Your task to perform on an android device: Open calendar and show me the first week of next month Image 0: 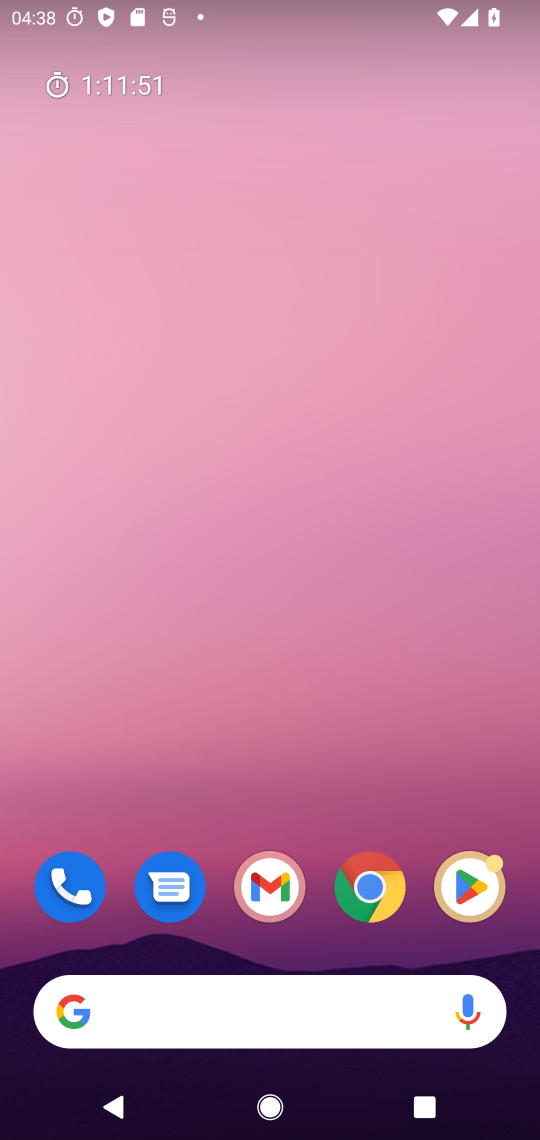
Step 0: press home button
Your task to perform on an android device: Open calendar and show me the first week of next month Image 1: 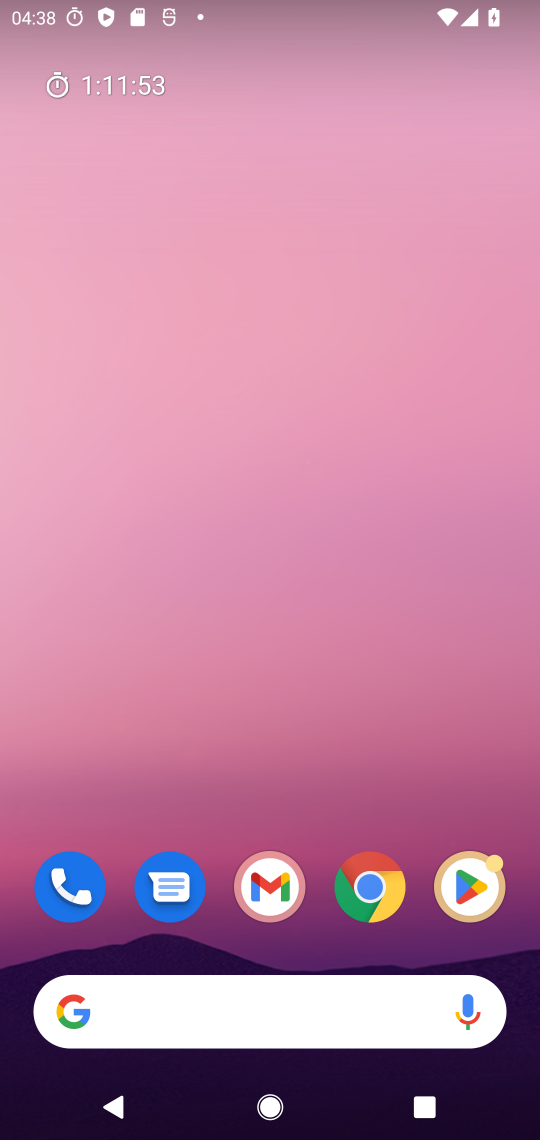
Step 1: drag from (423, 798) to (466, 192)
Your task to perform on an android device: Open calendar and show me the first week of next month Image 2: 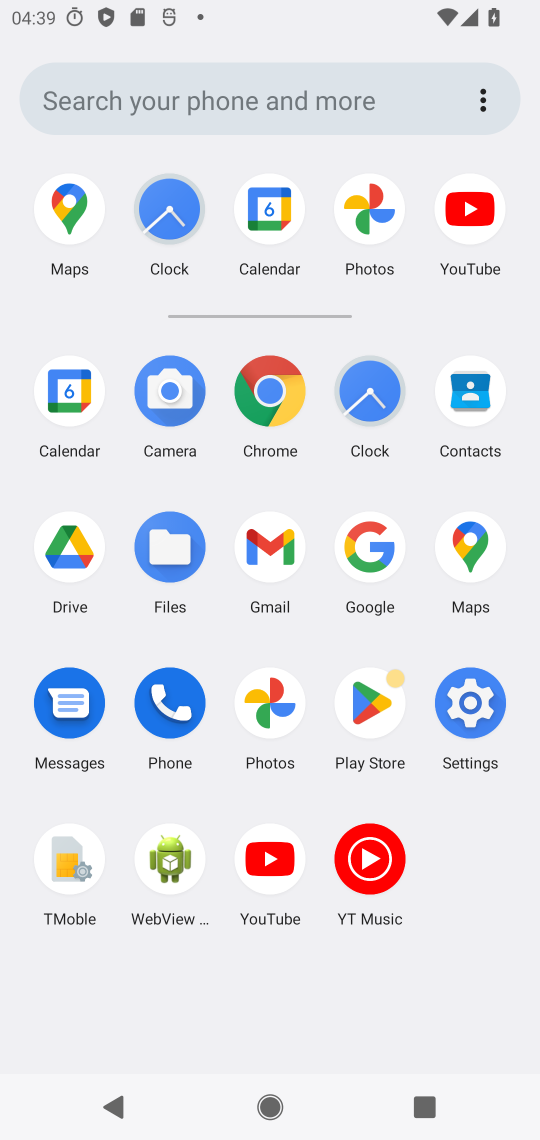
Step 2: click (76, 382)
Your task to perform on an android device: Open calendar and show me the first week of next month Image 3: 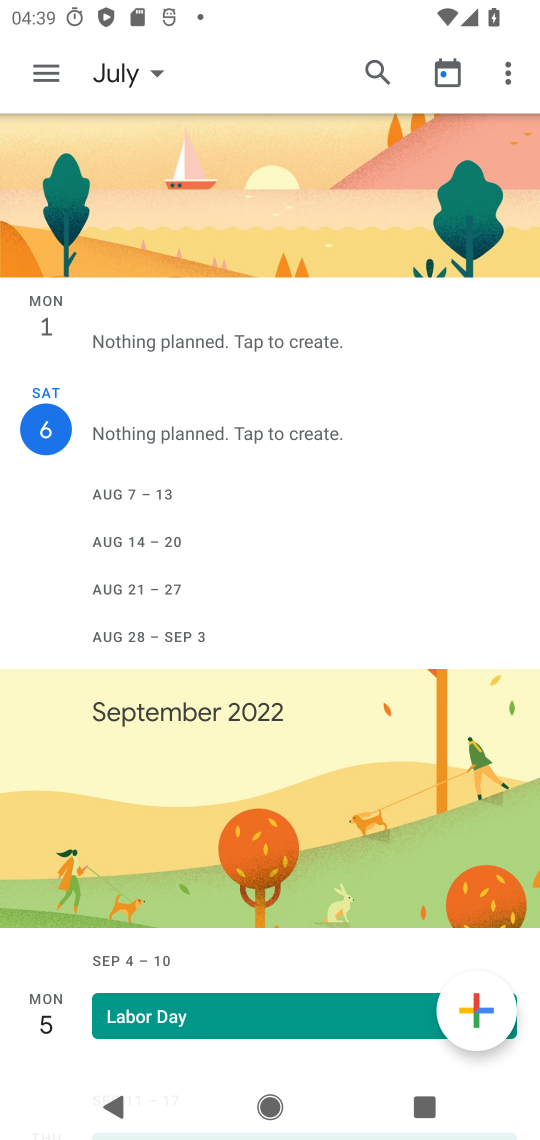
Step 3: click (155, 72)
Your task to perform on an android device: Open calendar and show me the first week of next month Image 4: 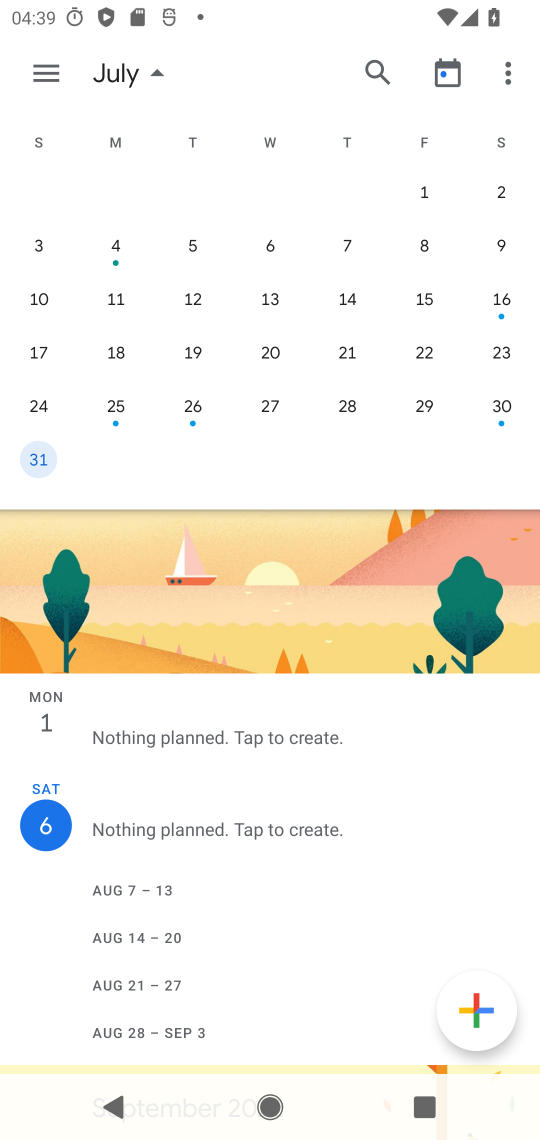
Step 4: task complete